Your task to perform on an android device: Go to Maps Image 0: 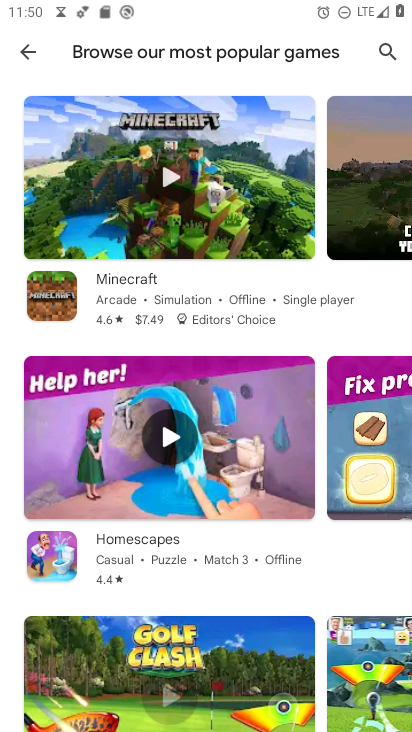
Step 0: press home button
Your task to perform on an android device: Go to Maps Image 1: 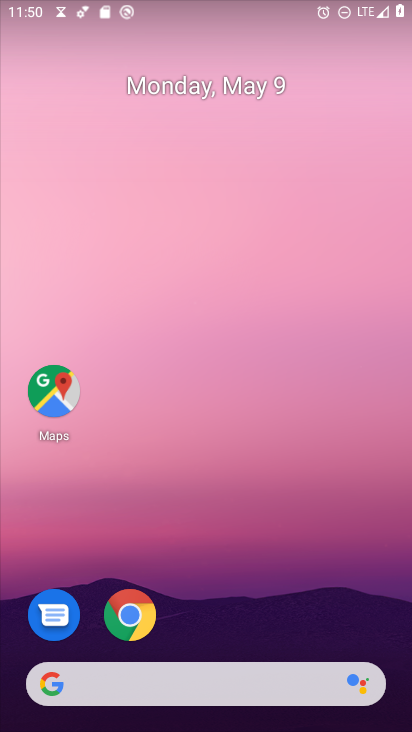
Step 1: drag from (217, 729) to (222, 184)
Your task to perform on an android device: Go to Maps Image 2: 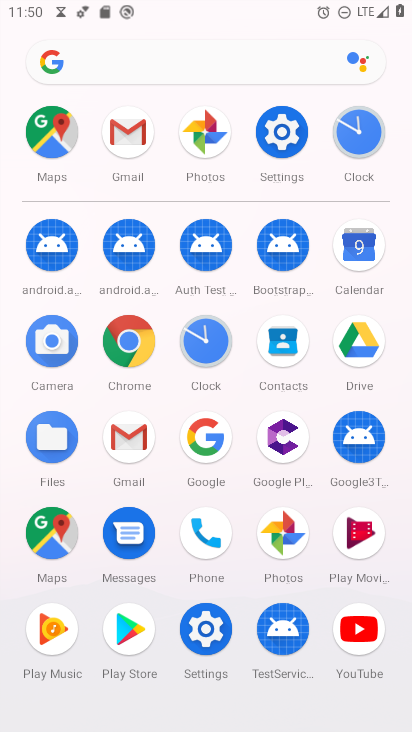
Step 2: click (53, 526)
Your task to perform on an android device: Go to Maps Image 3: 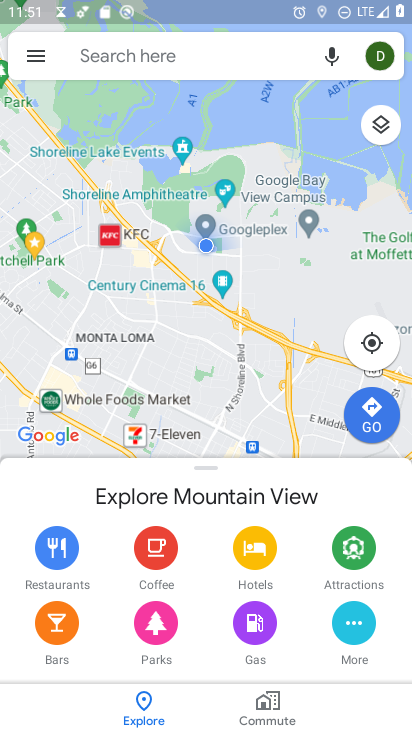
Step 3: task complete